Your task to perform on an android device: turn on bluetooth scan Image 0: 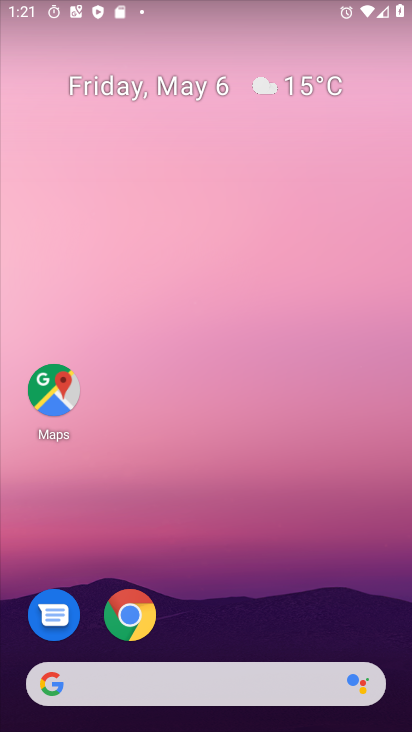
Step 0: drag from (255, 581) to (213, 3)
Your task to perform on an android device: turn on bluetooth scan Image 1: 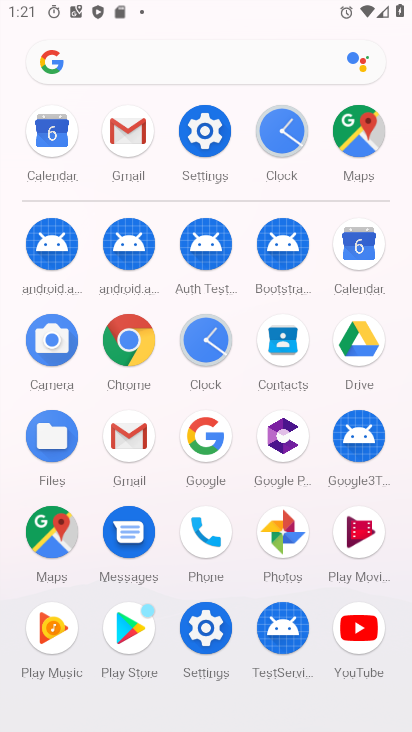
Step 1: click (204, 132)
Your task to perform on an android device: turn on bluetooth scan Image 2: 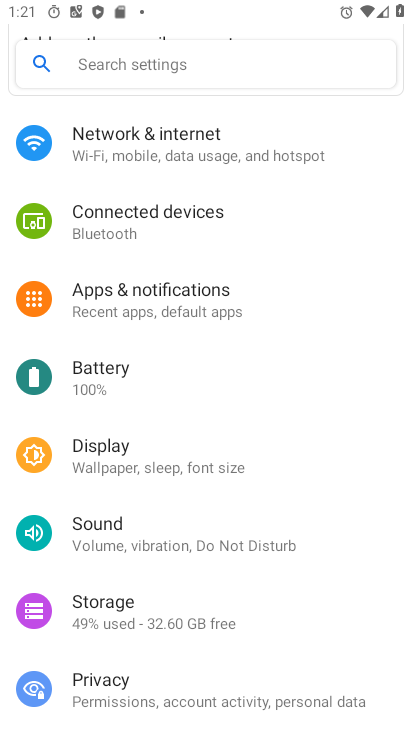
Step 2: drag from (265, 602) to (233, 124)
Your task to perform on an android device: turn on bluetooth scan Image 3: 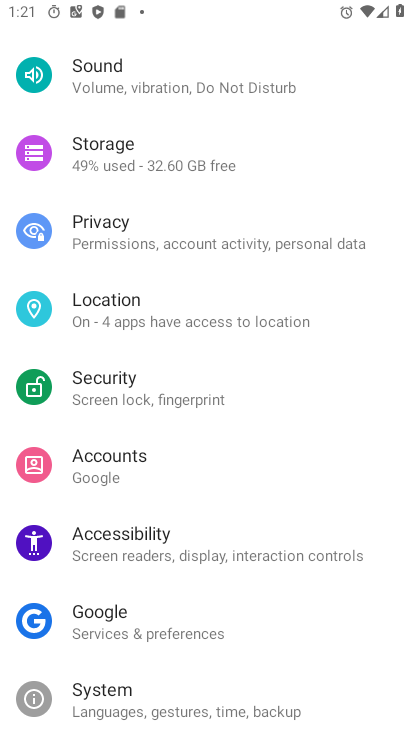
Step 3: click (224, 309)
Your task to perform on an android device: turn on bluetooth scan Image 4: 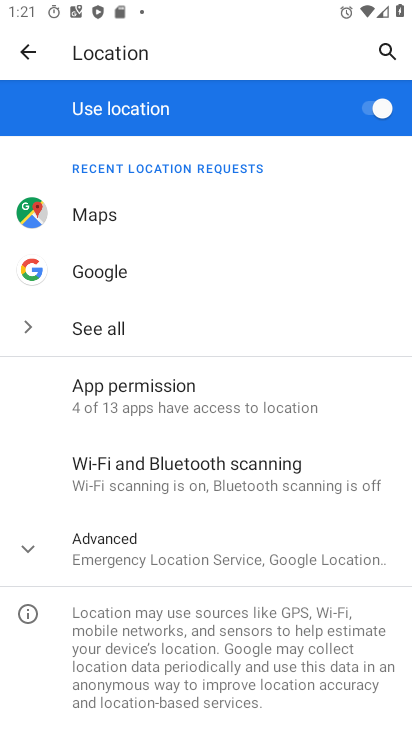
Step 4: click (273, 469)
Your task to perform on an android device: turn on bluetooth scan Image 5: 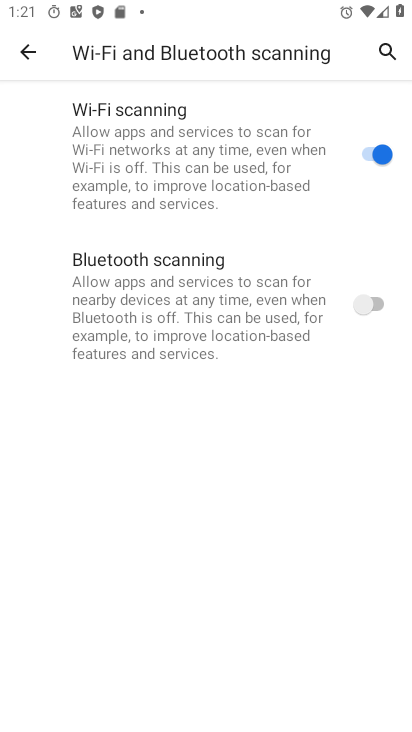
Step 5: click (370, 304)
Your task to perform on an android device: turn on bluetooth scan Image 6: 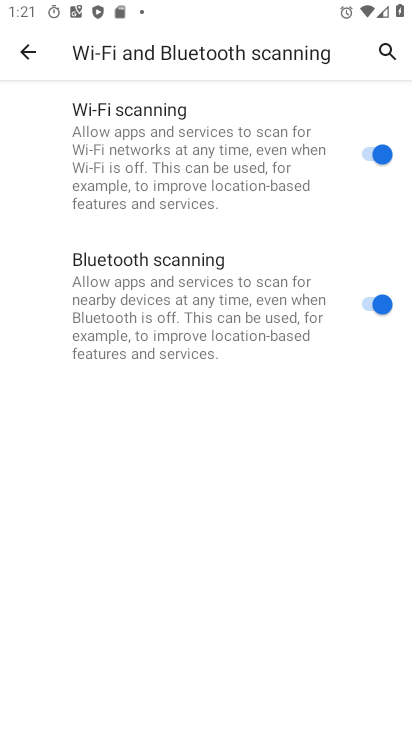
Step 6: task complete